Your task to perform on an android device: open chrome privacy settings Image 0: 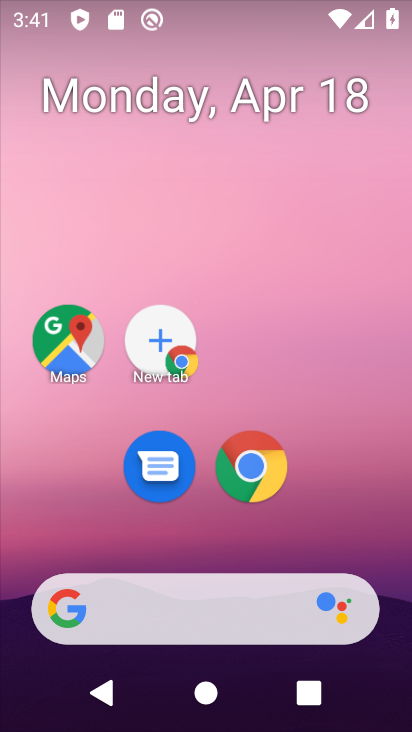
Step 0: drag from (325, 465) to (249, 34)
Your task to perform on an android device: open chrome privacy settings Image 1: 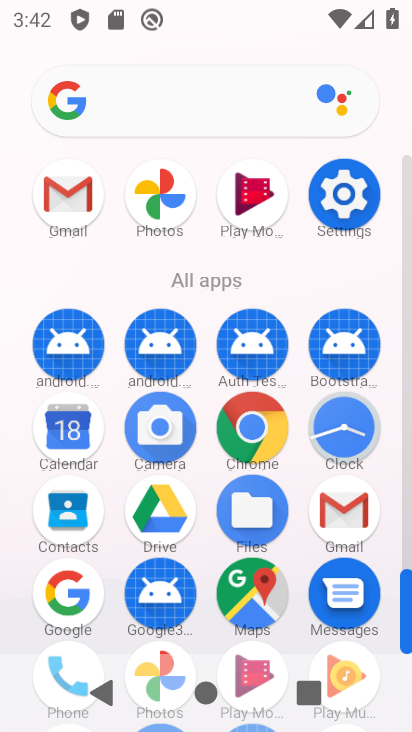
Step 1: drag from (5, 562) to (6, 218)
Your task to perform on an android device: open chrome privacy settings Image 2: 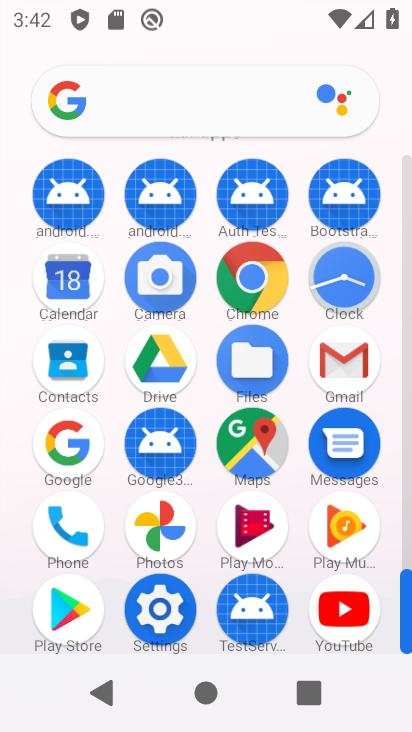
Step 2: click (251, 273)
Your task to perform on an android device: open chrome privacy settings Image 3: 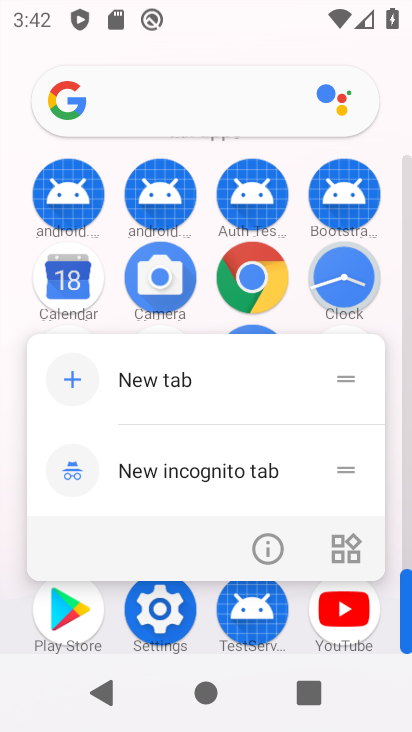
Step 3: click (249, 270)
Your task to perform on an android device: open chrome privacy settings Image 4: 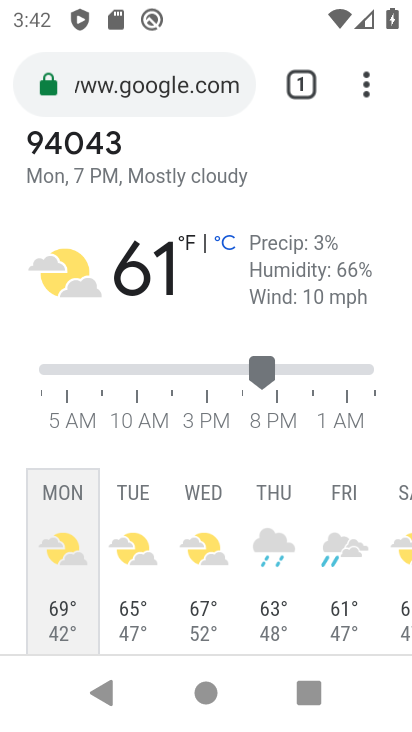
Step 4: drag from (254, 113) to (260, 415)
Your task to perform on an android device: open chrome privacy settings Image 5: 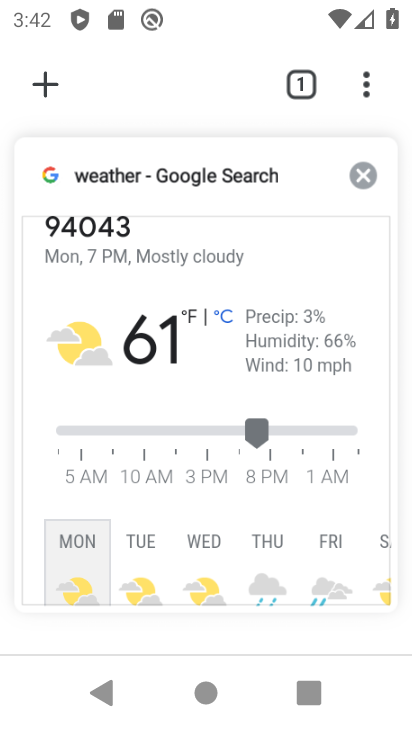
Step 5: click (360, 171)
Your task to perform on an android device: open chrome privacy settings Image 6: 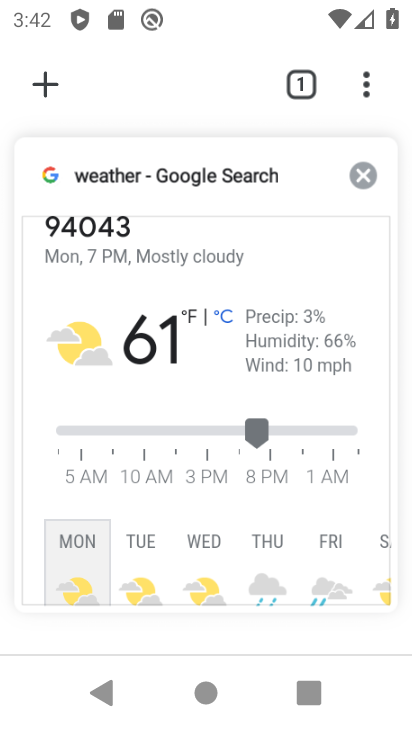
Step 6: click (360, 172)
Your task to perform on an android device: open chrome privacy settings Image 7: 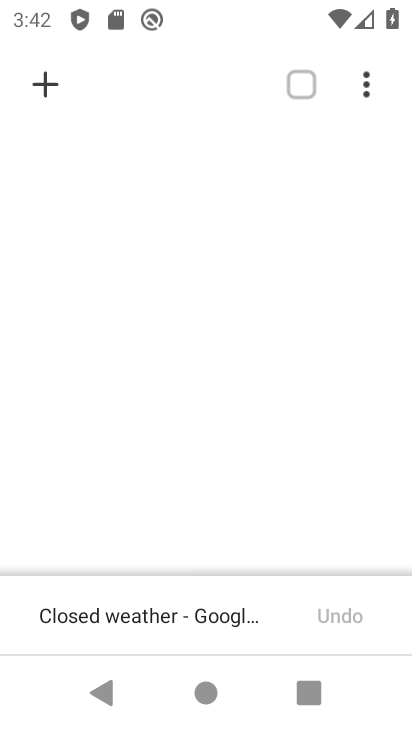
Step 7: click (365, 81)
Your task to perform on an android device: open chrome privacy settings Image 8: 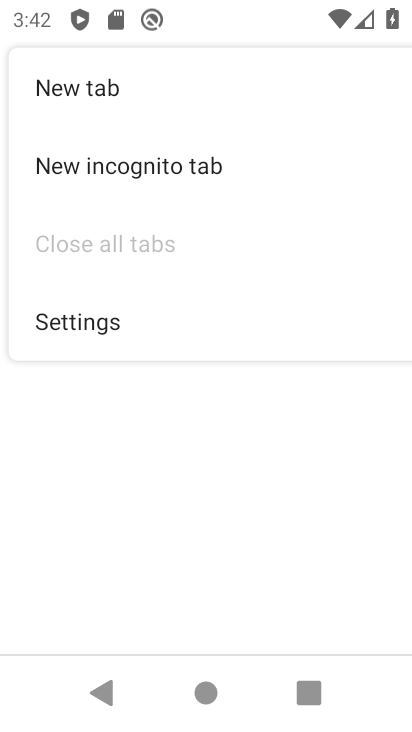
Step 8: drag from (346, 87) to (79, 316)
Your task to perform on an android device: open chrome privacy settings Image 9: 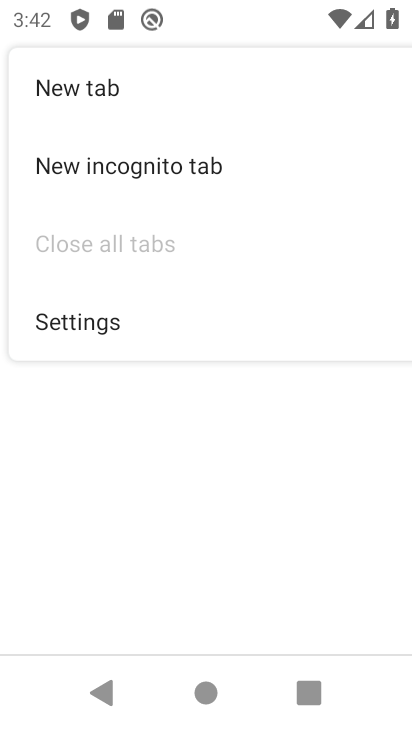
Step 9: click (79, 316)
Your task to perform on an android device: open chrome privacy settings Image 10: 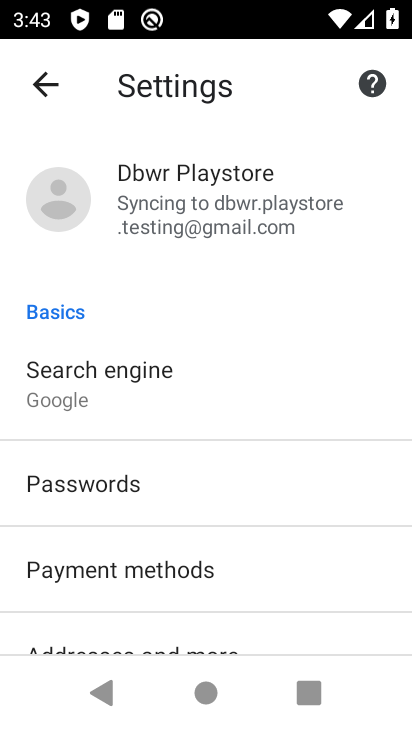
Step 10: drag from (237, 560) to (236, 219)
Your task to perform on an android device: open chrome privacy settings Image 11: 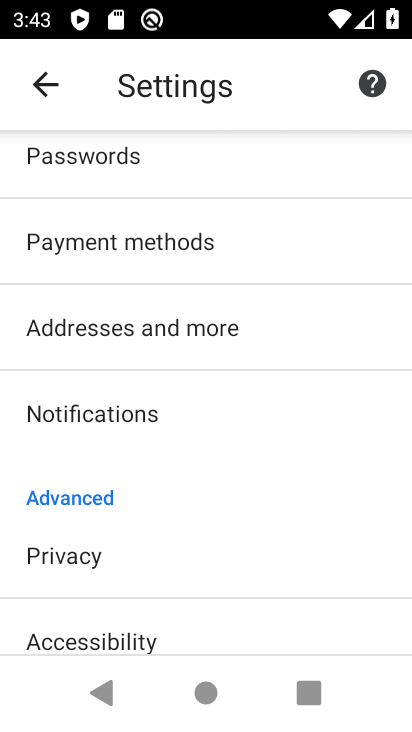
Step 11: click (155, 561)
Your task to perform on an android device: open chrome privacy settings Image 12: 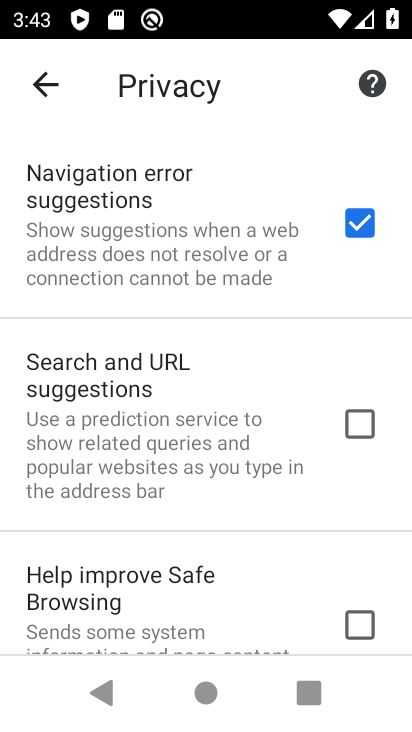
Step 12: task complete